Your task to perform on an android device: When is my next meeting? Image 0: 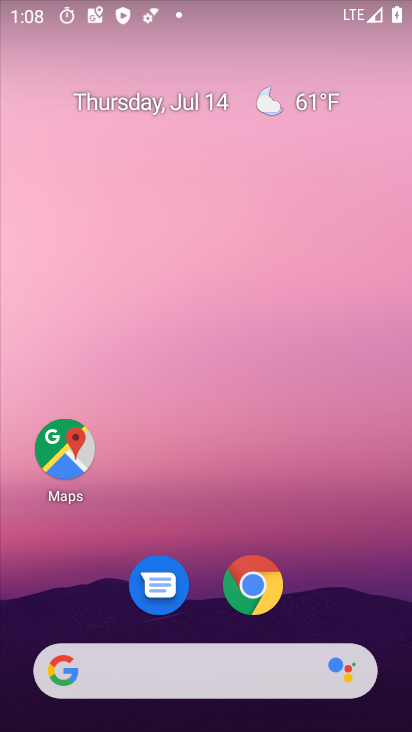
Step 0: drag from (343, 573) to (278, 75)
Your task to perform on an android device: When is my next meeting? Image 1: 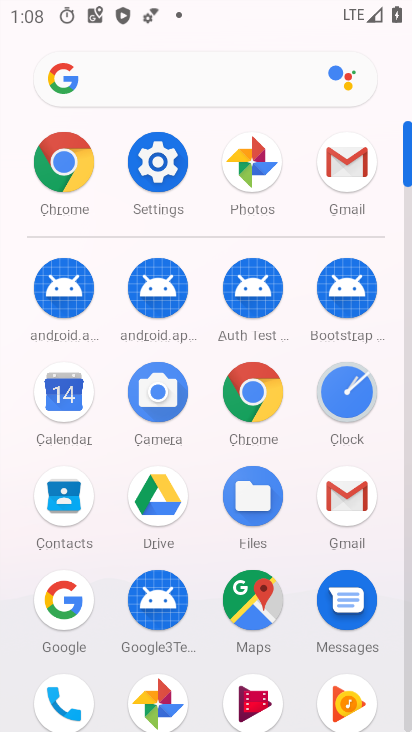
Step 1: click (67, 397)
Your task to perform on an android device: When is my next meeting? Image 2: 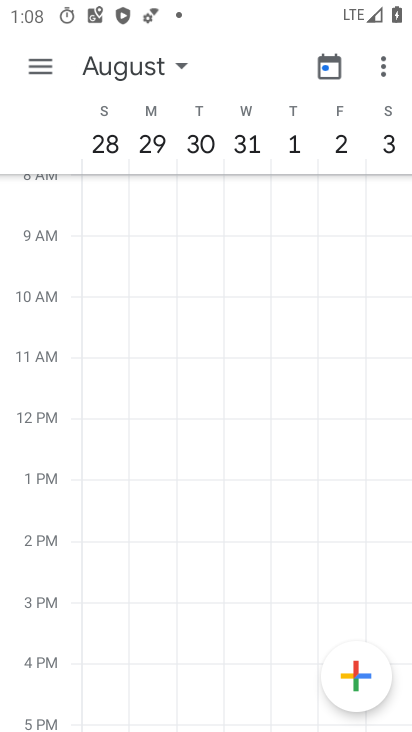
Step 2: drag from (111, 374) to (411, 488)
Your task to perform on an android device: When is my next meeting? Image 3: 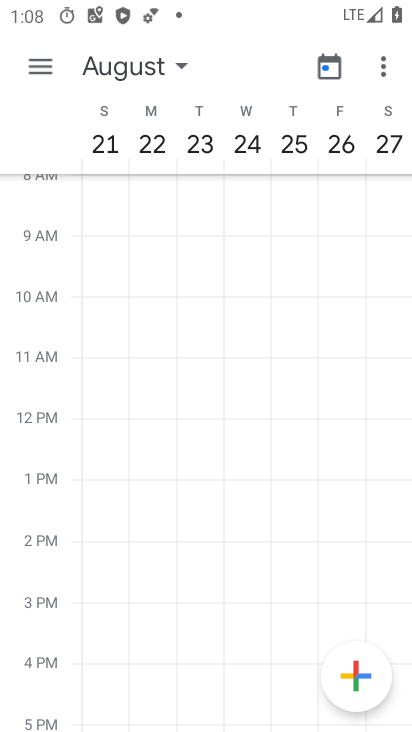
Step 3: drag from (103, 377) to (411, 459)
Your task to perform on an android device: When is my next meeting? Image 4: 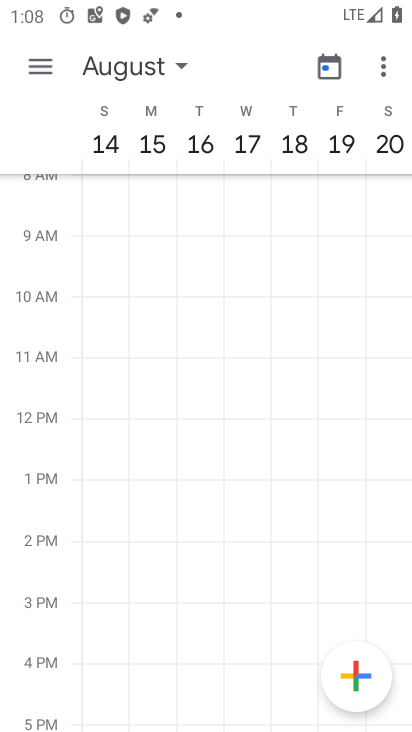
Step 4: drag from (104, 368) to (409, 455)
Your task to perform on an android device: When is my next meeting? Image 5: 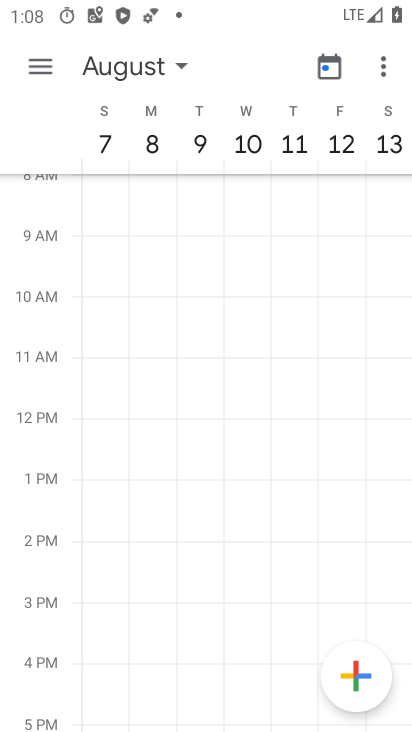
Step 5: drag from (101, 391) to (405, 455)
Your task to perform on an android device: When is my next meeting? Image 6: 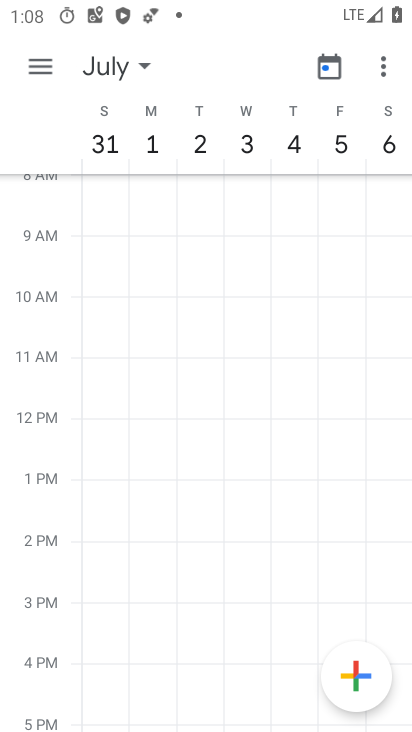
Step 6: drag from (94, 376) to (410, 451)
Your task to perform on an android device: When is my next meeting? Image 7: 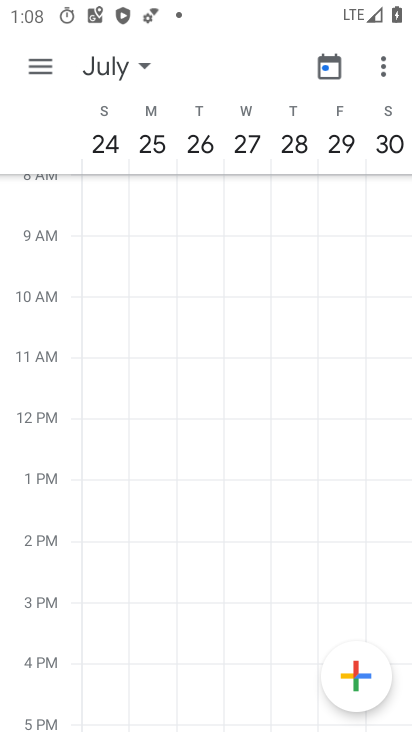
Step 7: drag from (106, 371) to (411, 398)
Your task to perform on an android device: When is my next meeting? Image 8: 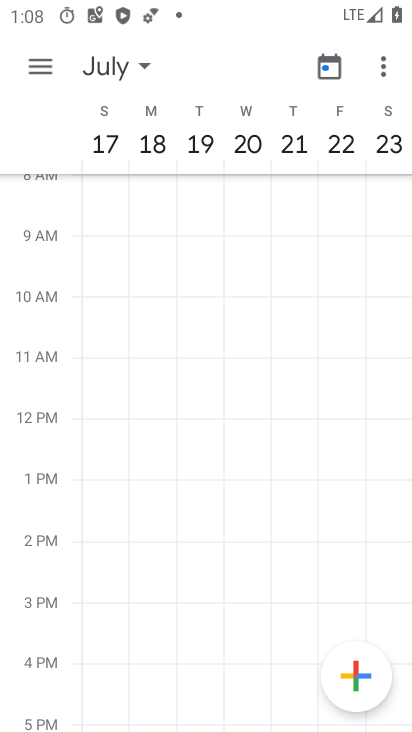
Step 8: drag from (99, 383) to (411, 394)
Your task to perform on an android device: When is my next meeting? Image 9: 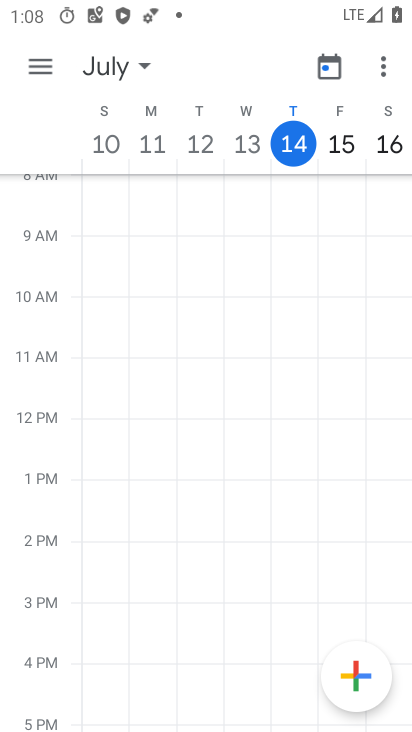
Step 9: click (296, 139)
Your task to perform on an android device: When is my next meeting? Image 10: 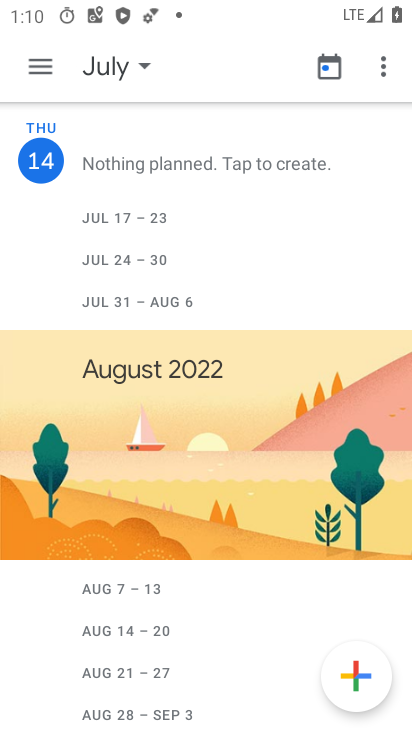
Step 10: task complete